Your task to perform on an android device: Open Youtube and go to the subscriptions tab Image 0: 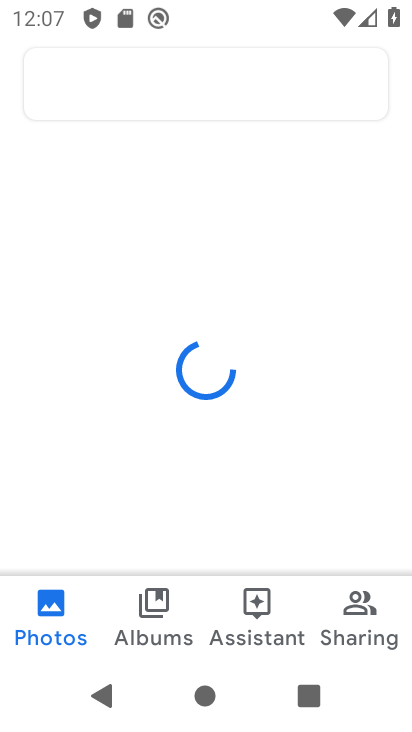
Step 0: press home button
Your task to perform on an android device: Open Youtube and go to the subscriptions tab Image 1: 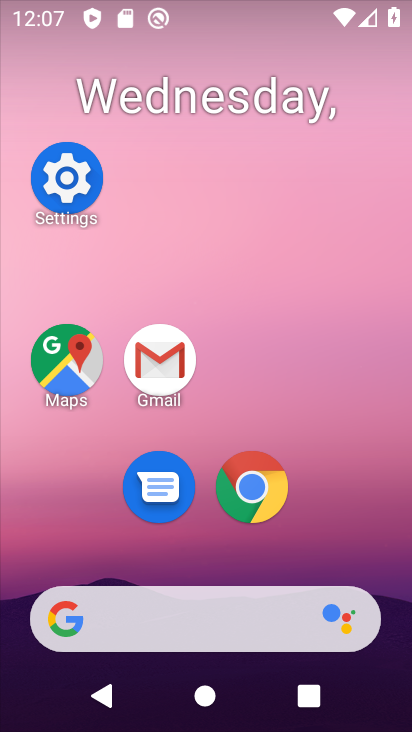
Step 1: drag from (304, 534) to (245, 116)
Your task to perform on an android device: Open Youtube and go to the subscriptions tab Image 2: 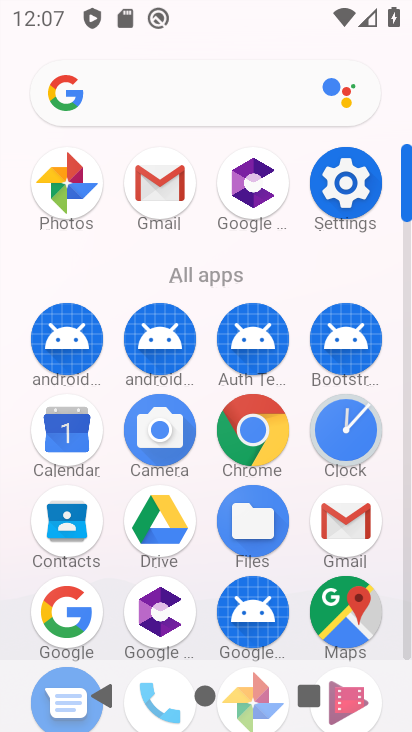
Step 2: drag from (270, 551) to (196, 153)
Your task to perform on an android device: Open Youtube and go to the subscriptions tab Image 3: 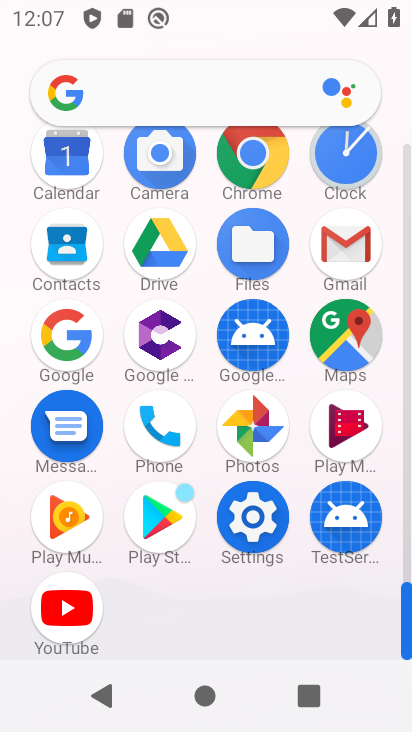
Step 3: drag from (65, 613) to (231, 368)
Your task to perform on an android device: Open Youtube and go to the subscriptions tab Image 4: 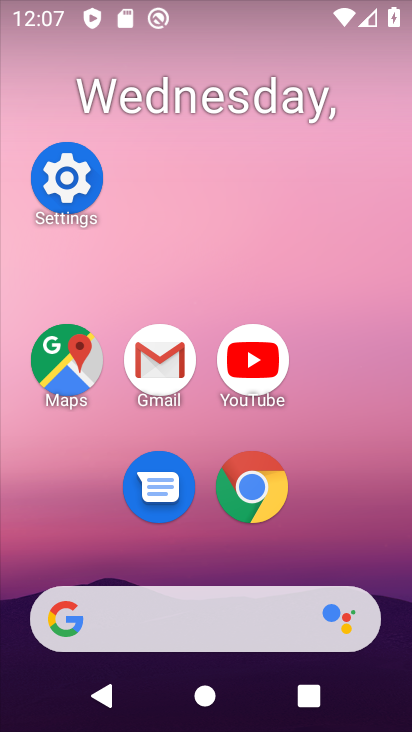
Step 4: click (239, 344)
Your task to perform on an android device: Open Youtube and go to the subscriptions tab Image 5: 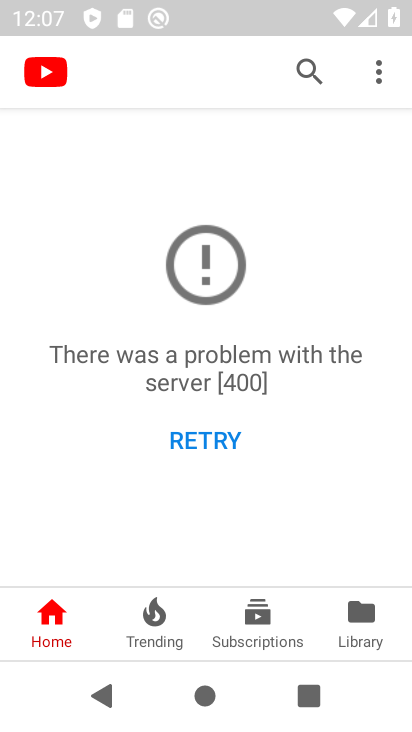
Step 5: click (264, 615)
Your task to perform on an android device: Open Youtube and go to the subscriptions tab Image 6: 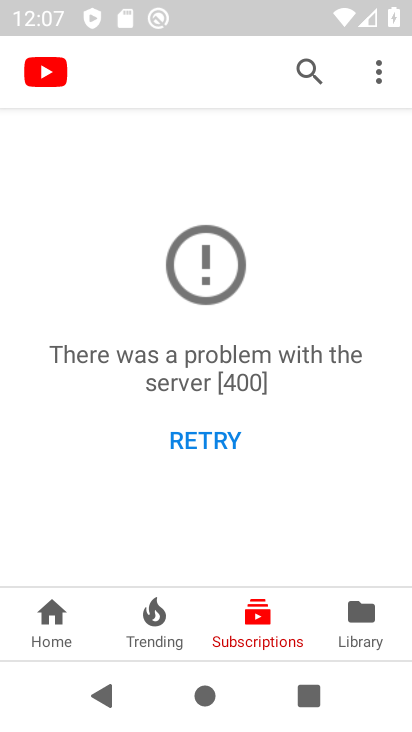
Step 6: task complete